Your task to perform on an android device: Go to Amazon Image 0: 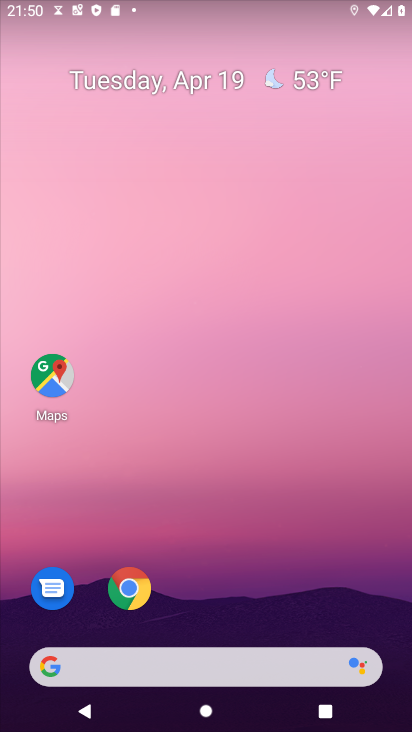
Step 0: click (127, 590)
Your task to perform on an android device: Go to Amazon Image 1: 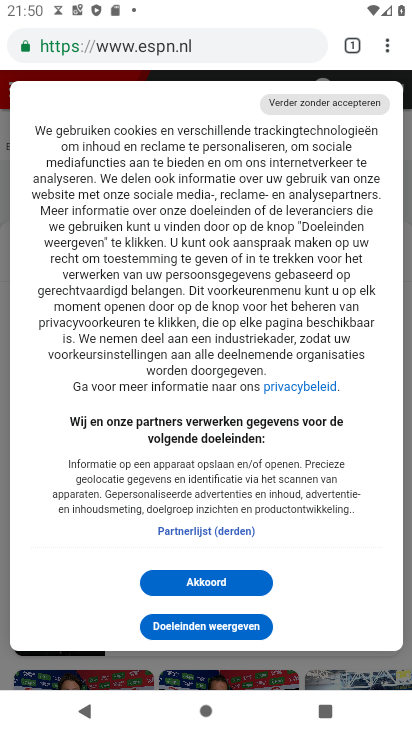
Step 1: click (303, 42)
Your task to perform on an android device: Go to Amazon Image 2: 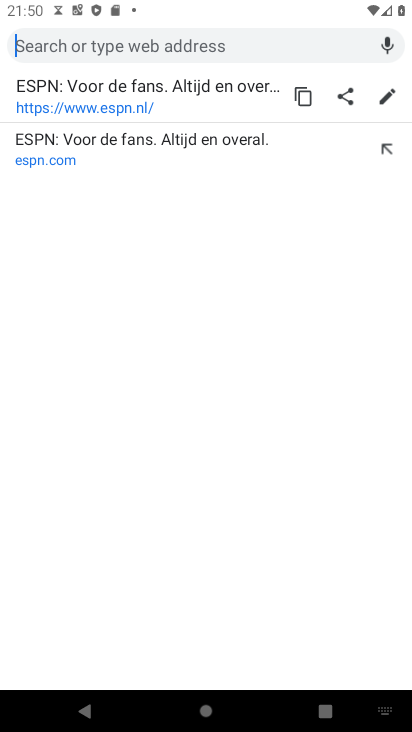
Step 2: type "Amazon"
Your task to perform on an android device: Go to Amazon Image 3: 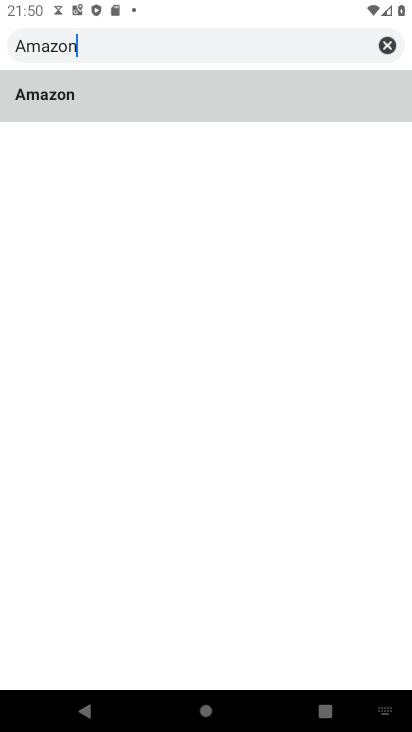
Step 3: click (68, 105)
Your task to perform on an android device: Go to Amazon Image 4: 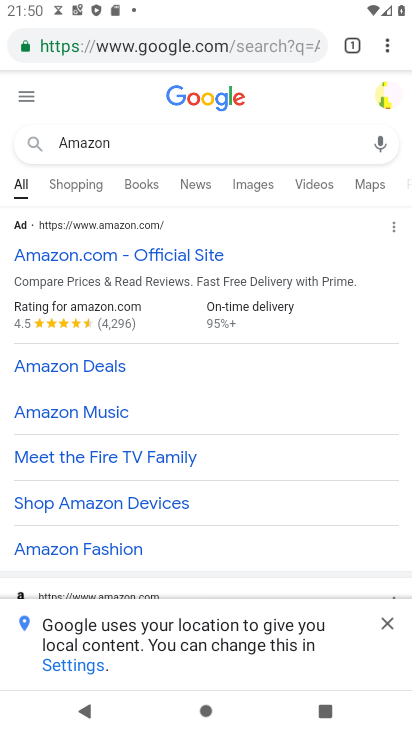
Step 4: task complete